Your task to perform on an android device: install app "Google Play services" Image 0: 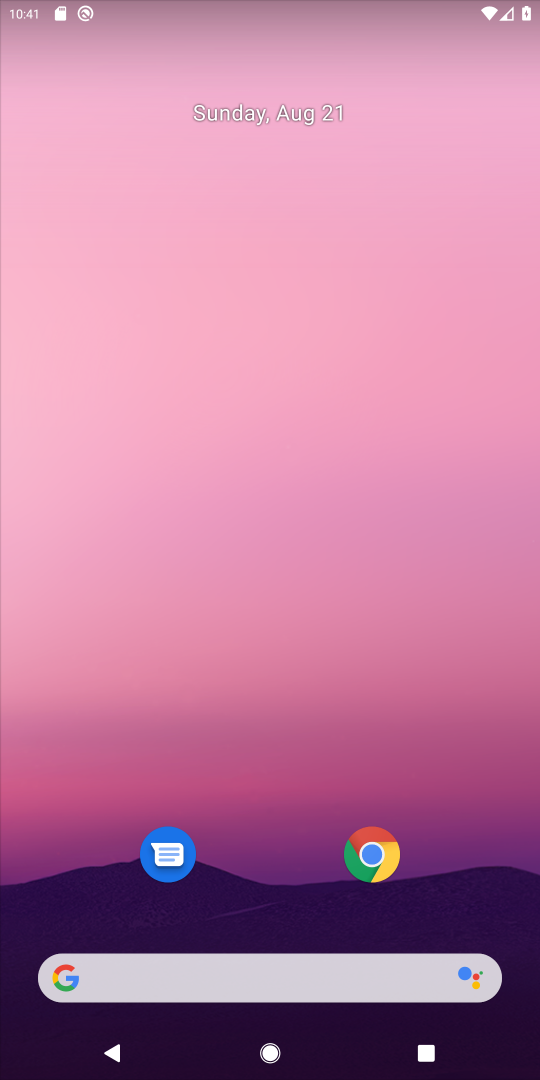
Step 0: drag from (282, 955) to (219, 225)
Your task to perform on an android device: install app "Google Play services" Image 1: 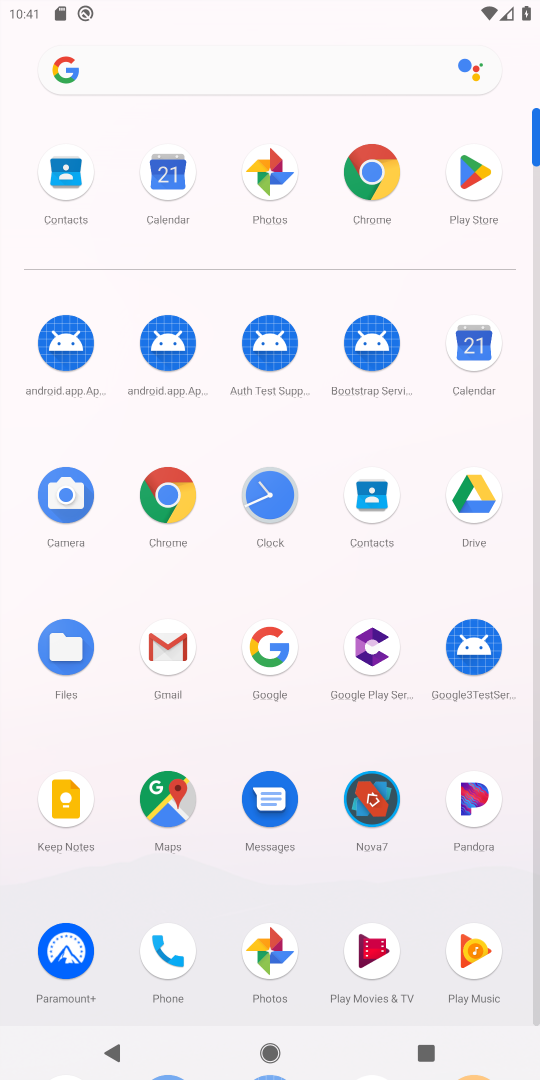
Step 1: click (452, 189)
Your task to perform on an android device: install app "Google Play services" Image 2: 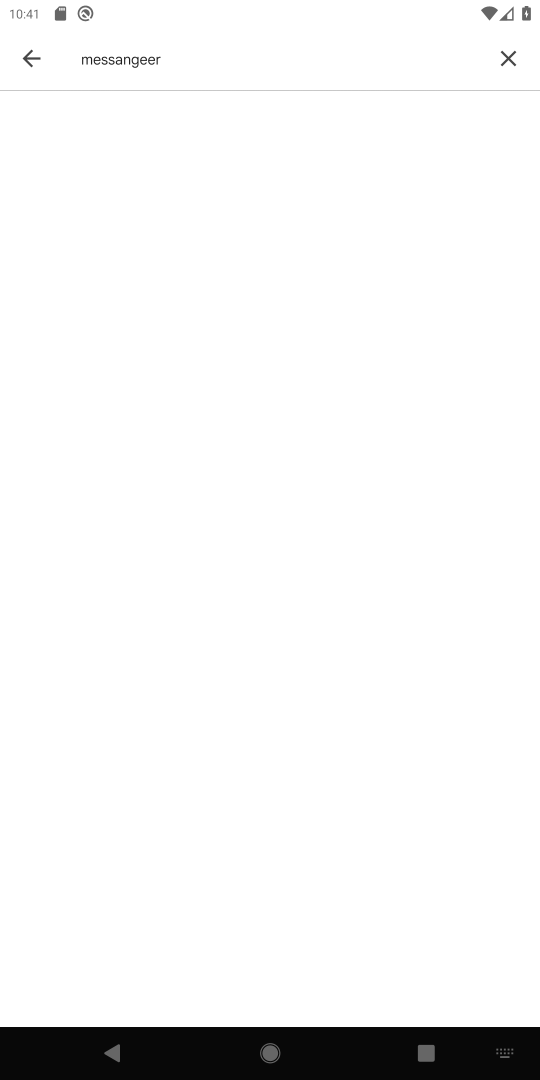
Step 2: task complete